Your task to perform on an android device: turn off airplane mode Image 0: 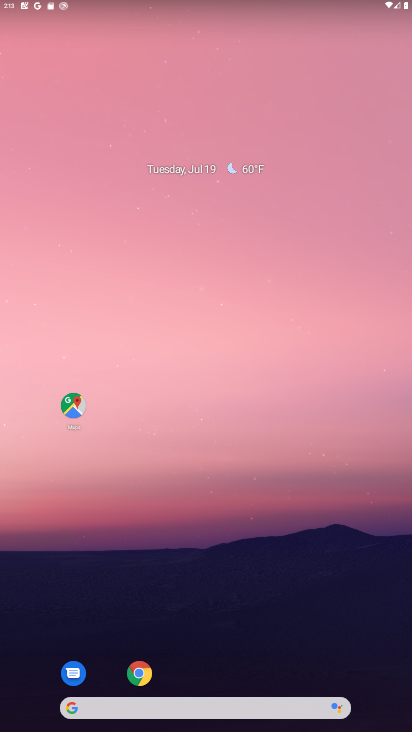
Step 0: drag from (159, 726) to (366, 147)
Your task to perform on an android device: turn off airplane mode Image 1: 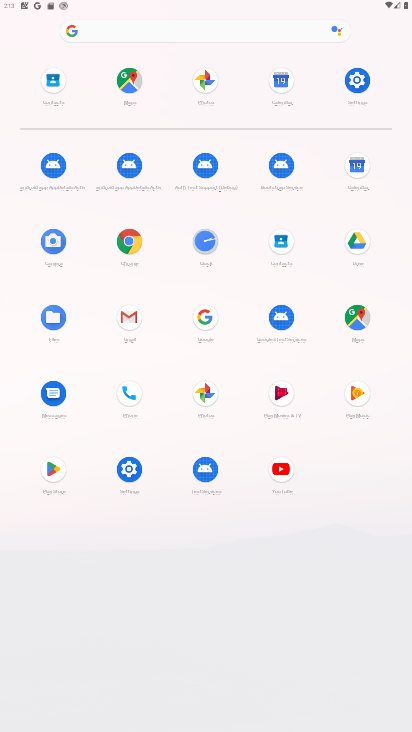
Step 1: click (360, 76)
Your task to perform on an android device: turn off airplane mode Image 2: 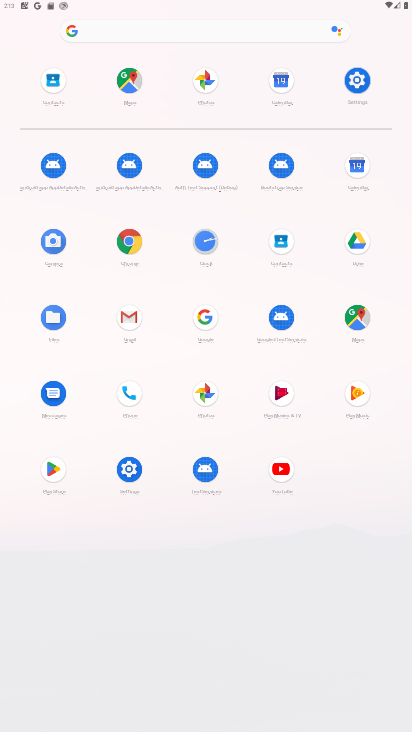
Step 2: click (360, 76)
Your task to perform on an android device: turn off airplane mode Image 3: 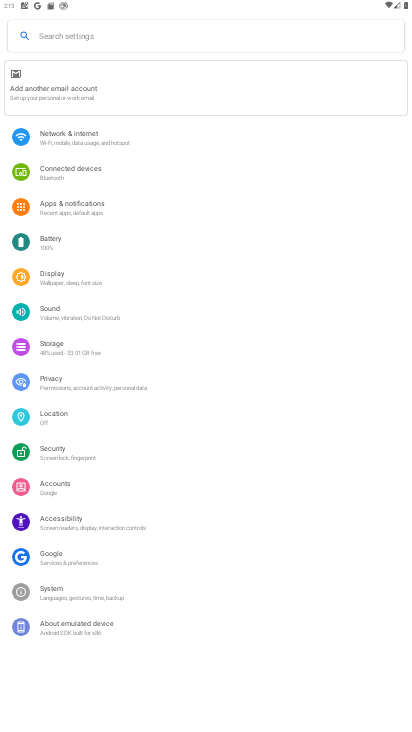
Step 3: click (115, 143)
Your task to perform on an android device: turn off airplane mode Image 4: 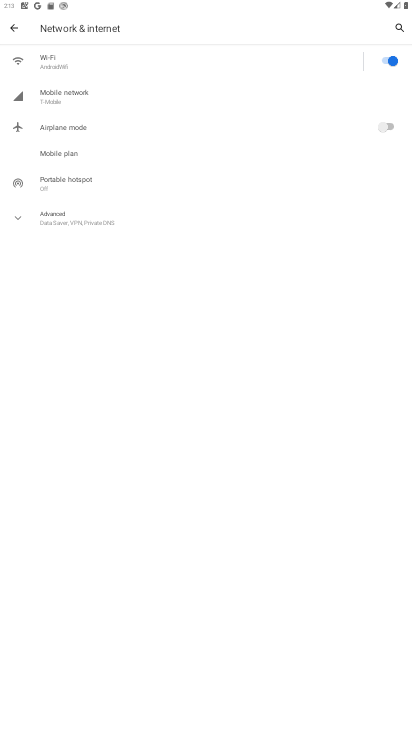
Step 4: task complete